Your task to perform on an android device: Open Maps and search for coffee Image 0: 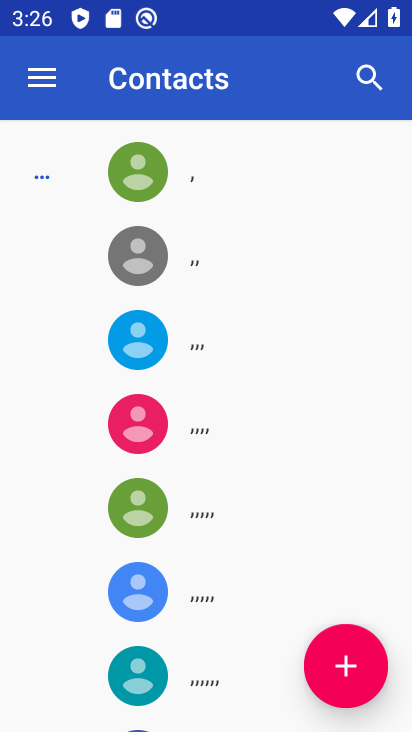
Step 0: press home button
Your task to perform on an android device: Open Maps and search for coffee Image 1: 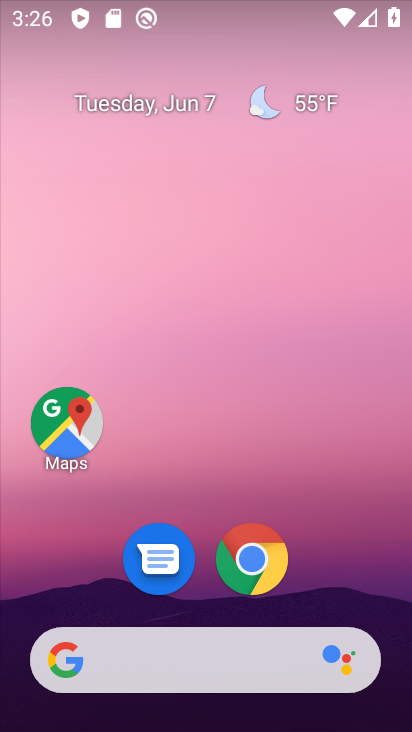
Step 1: drag from (223, 705) to (229, 119)
Your task to perform on an android device: Open Maps and search for coffee Image 2: 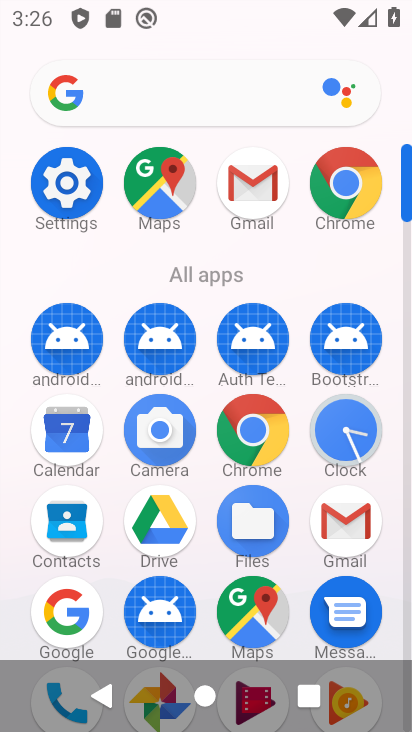
Step 2: click (237, 599)
Your task to perform on an android device: Open Maps and search for coffee Image 3: 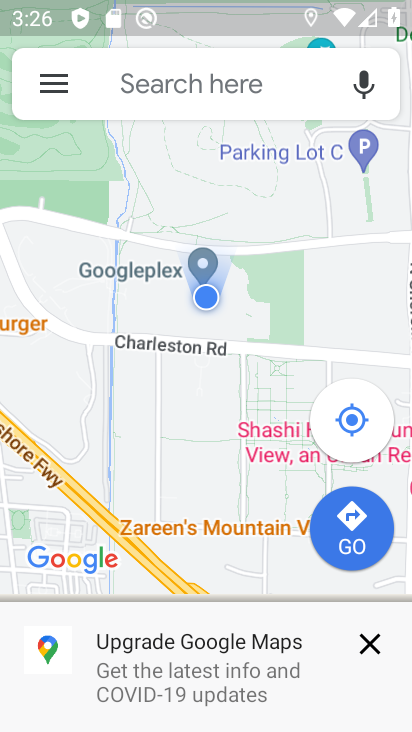
Step 3: click (204, 80)
Your task to perform on an android device: Open Maps and search for coffee Image 4: 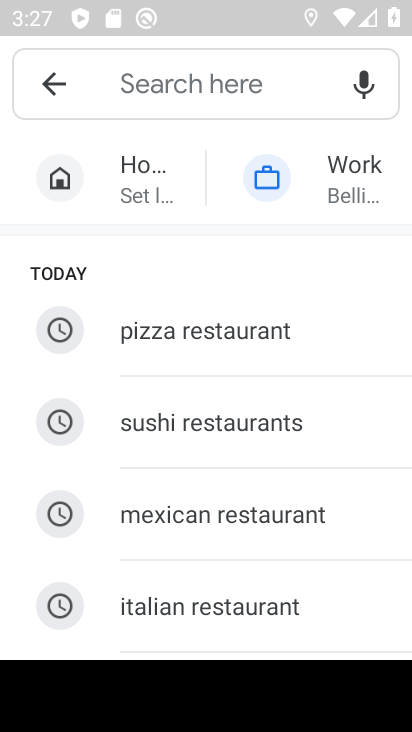
Step 4: type "coffee"
Your task to perform on an android device: Open Maps and search for coffee Image 5: 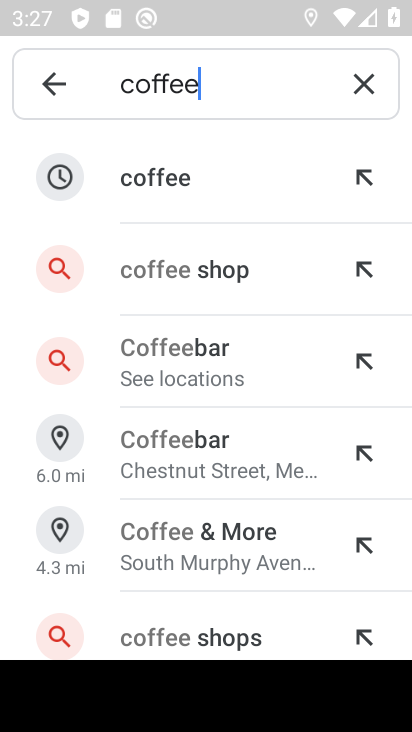
Step 5: click (158, 171)
Your task to perform on an android device: Open Maps and search for coffee Image 6: 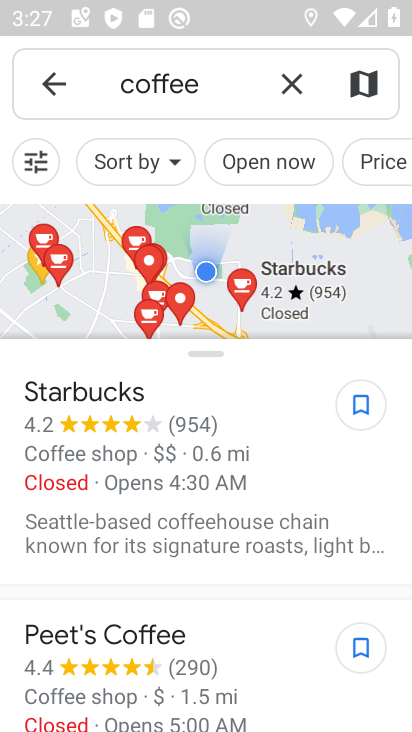
Step 6: task complete